Your task to perform on an android device: Open battery settings Image 0: 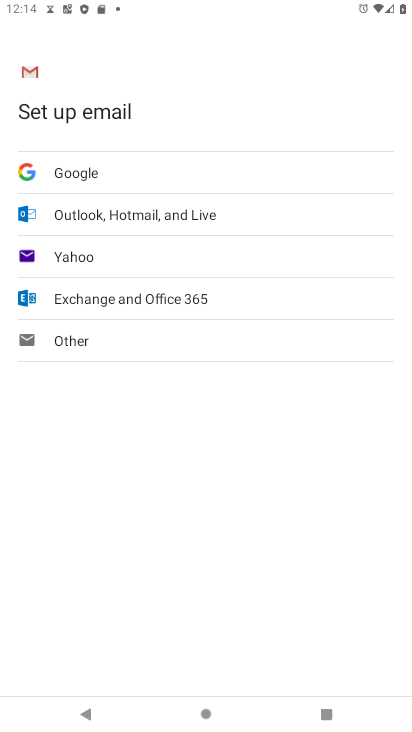
Step 0: press home button
Your task to perform on an android device: Open battery settings Image 1: 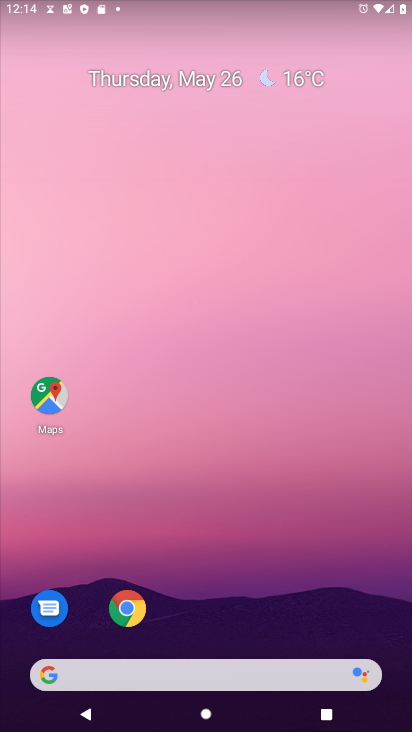
Step 1: drag from (236, 730) to (243, 78)
Your task to perform on an android device: Open battery settings Image 2: 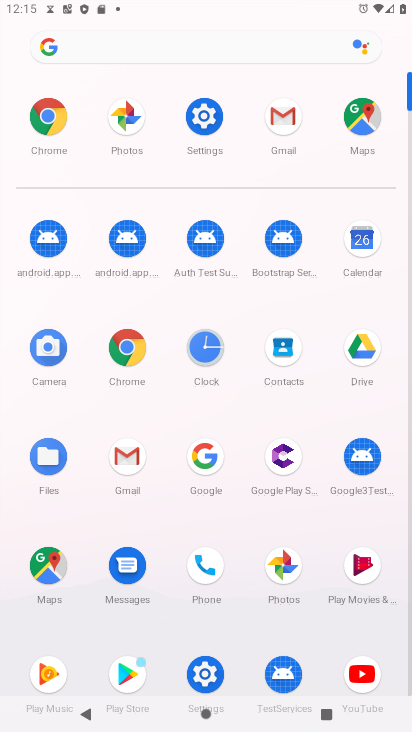
Step 2: click (207, 111)
Your task to perform on an android device: Open battery settings Image 3: 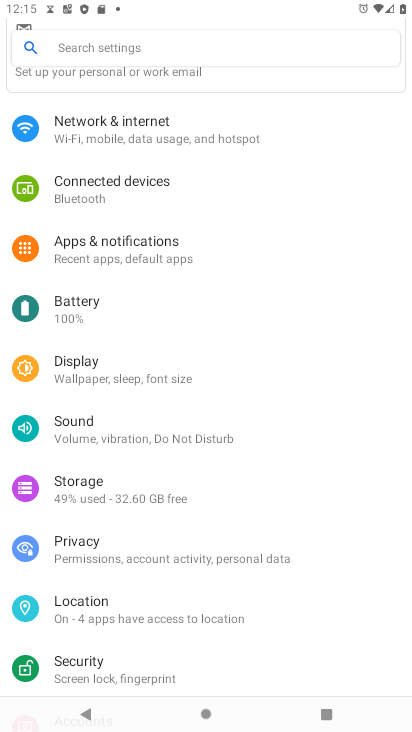
Step 3: click (57, 301)
Your task to perform on an android device: Open battery settings Image 4: 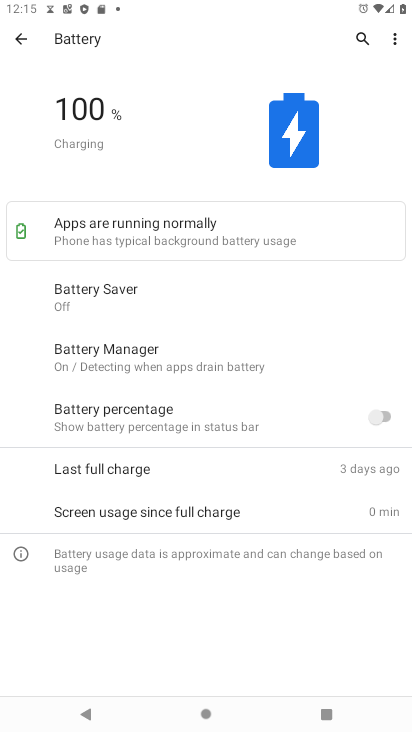
Step 4: task complete